Your task to perform on an android device: open sync settings in chrome Image 0: 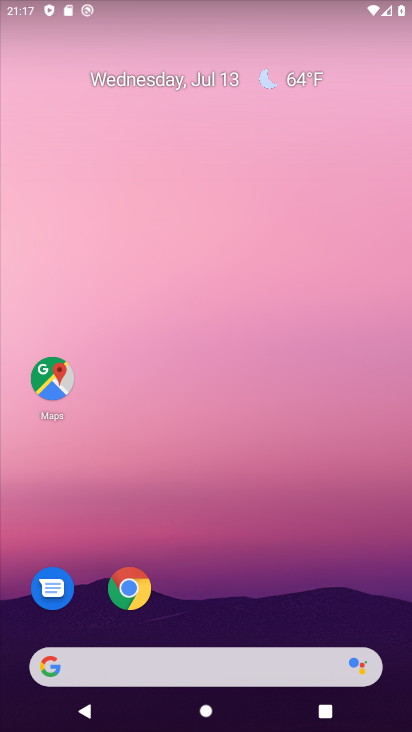
Step 0: click (135, 578)
Your task to perform on an android device: open sync settings in chrome Image 1: 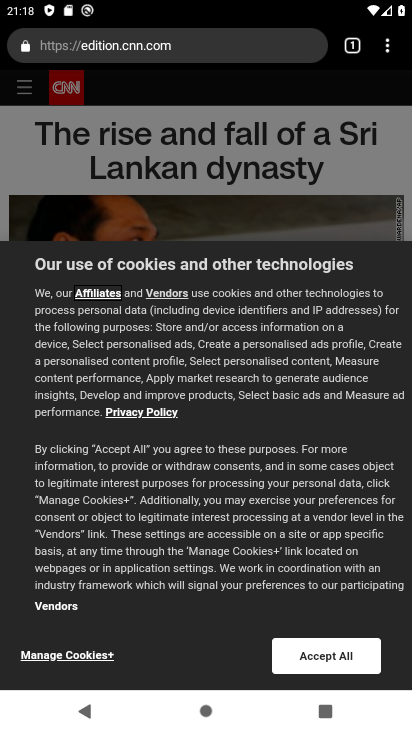
Step 1: drag from (390, 40) to (249, 506)
Your task to perform on an android device: open sync settings in chrome Image 2: 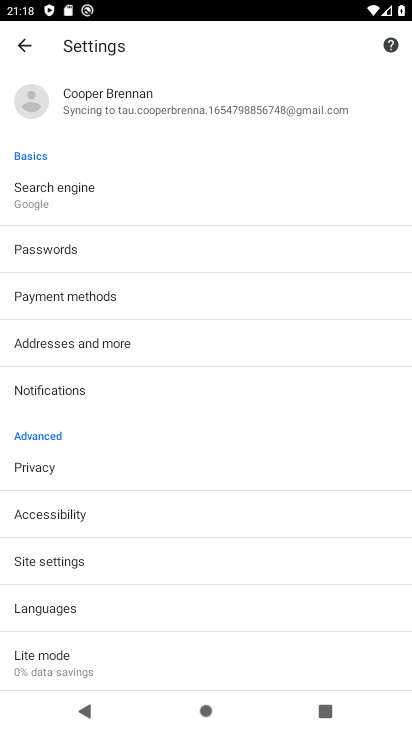
Step 2: click (222, 116)
Your task to perform on an android device: open sync settings in chrome Image 3: 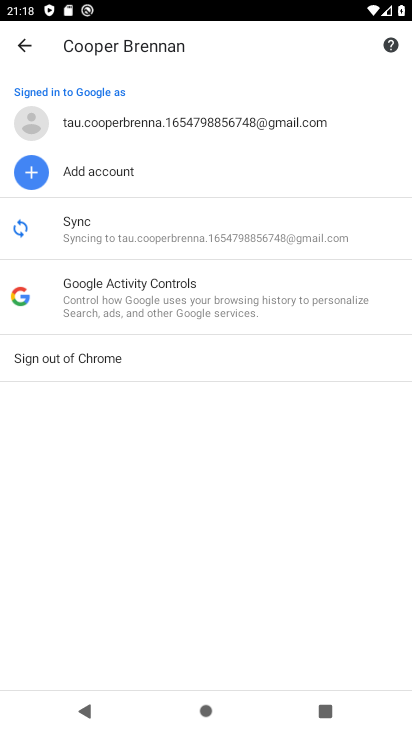
Step 3: task complete